Your task to perform on an android device: turn on the 24-hour format for clock Image 0: 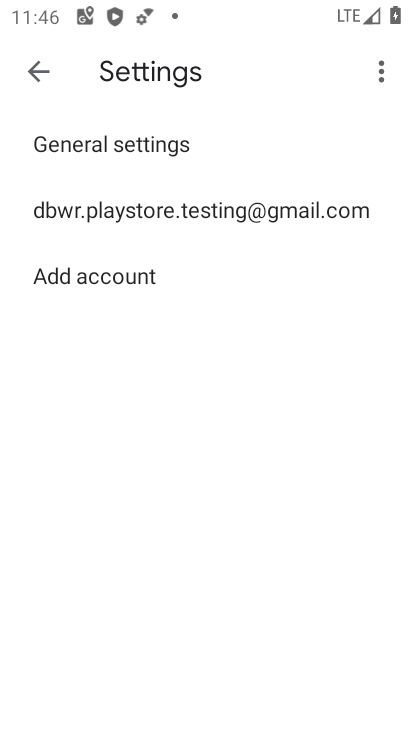
Step 0: press home button
Your task to perform on an android device: turn on the 24-hour format for clock Image 1: 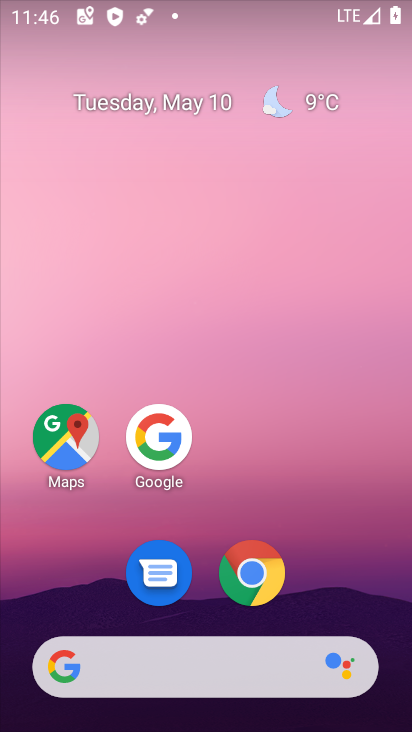
Step 1: drag from (155, 673) to (306, 176)
Your task to perform on an android device: turn on the 24-hour format for clock Image 2: 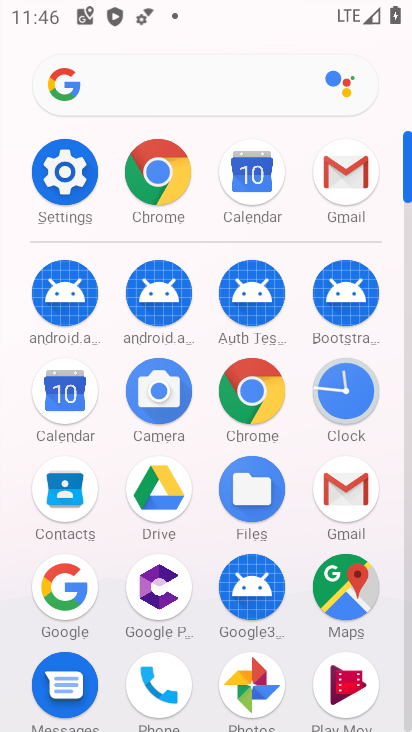
Step 2: click (350, 401)
Your task to perform on an android device: turn on the 24-hour format for clock Image 3: 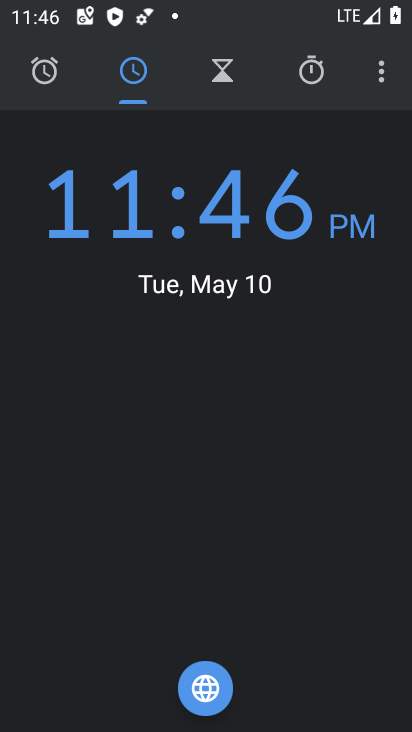
Step 3: click (383, 79)
Your task to perform on an android device: turn on the 24-hour format for clock Image 4: 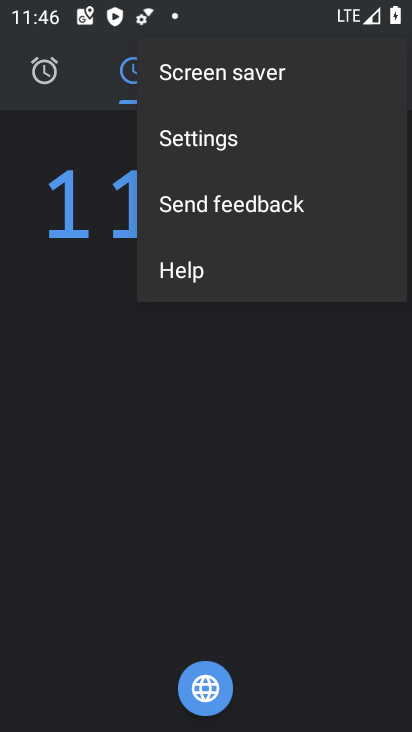
Step 4: click (217, 138)
Your task to perform on an android device: turn on the 24-hour format for clock Image 5: 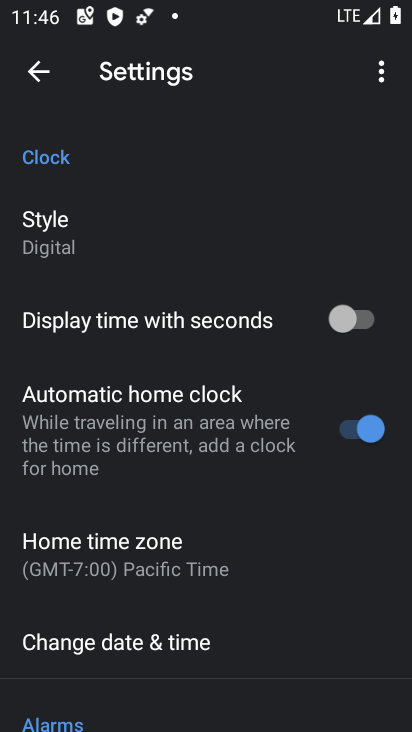
Step 5: drag from (197, 599) to (340, 223)
Your task to perform on an android device: turn on the 24-hour format for clock Image 6: 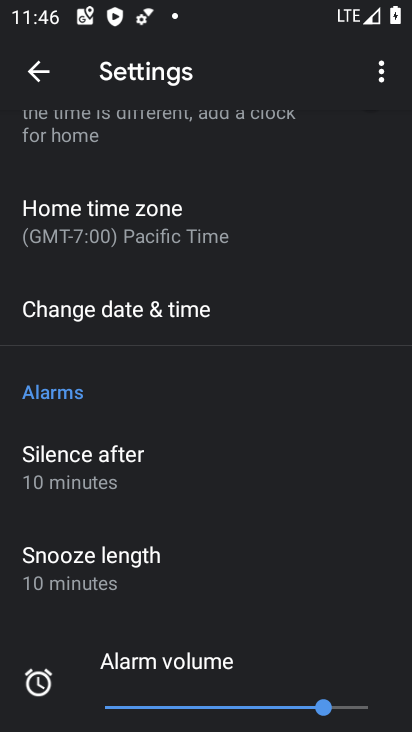
Step 6: click (180, 312)
Your task to perform on an android device: turn on the 24-hour format for clock Image 7: 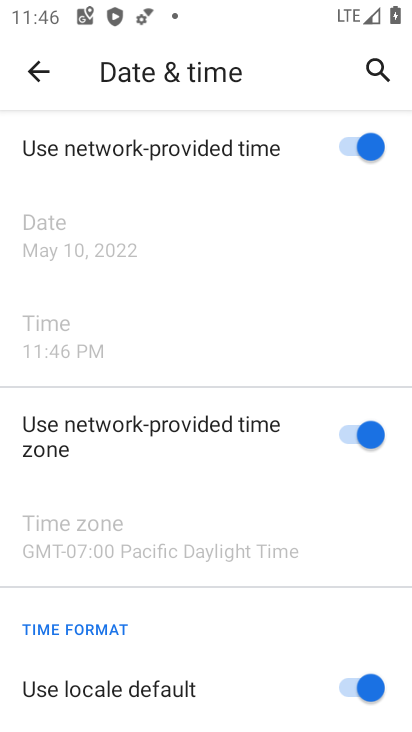
Step 7: drag from (180, 645) to (302, 226)
Your task to perform on an android device: turn on the 24-hour format for clock Image 8: 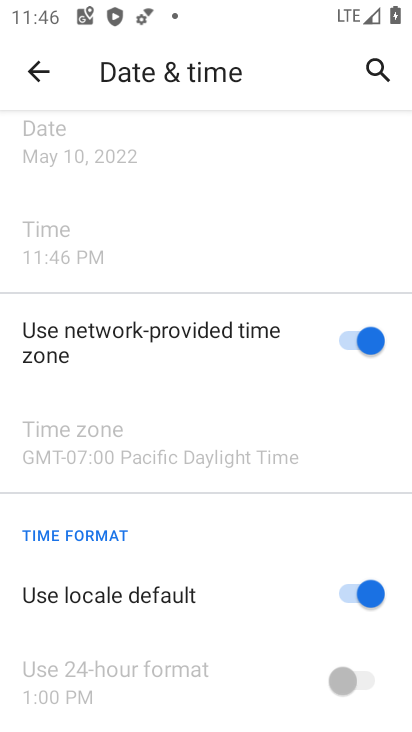
Step 8: click (349, 598)
Your task to perform on an android device: turn on the 24-hour format for clock Image 9: 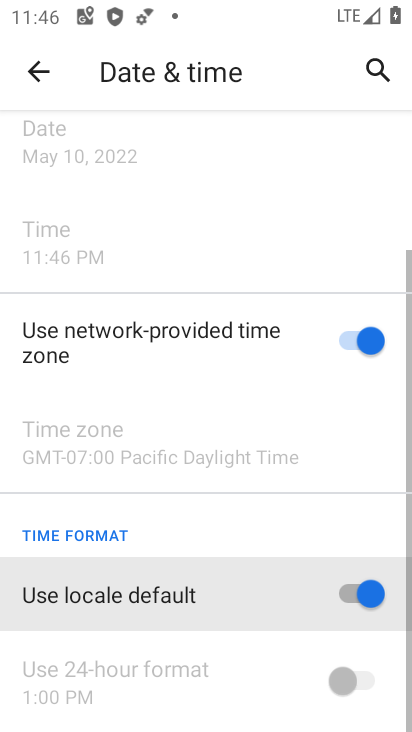
Step 9: click (364, 681)
Your task to perform on an android device: turn on the 24-hour format for clock Image 10: 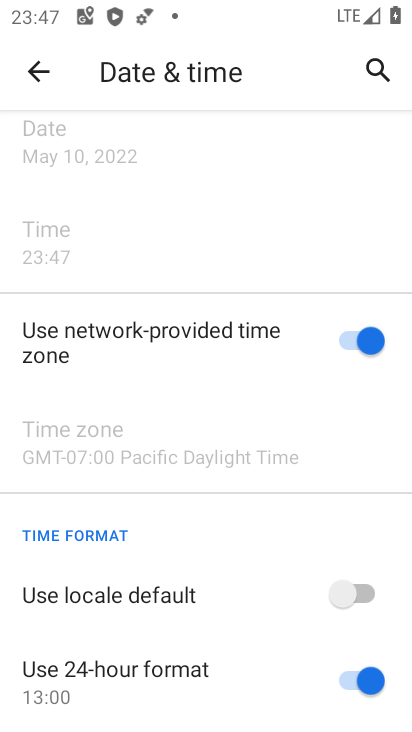
Step 10: task complete